Your task to perform on an android device: check storage Image 0: 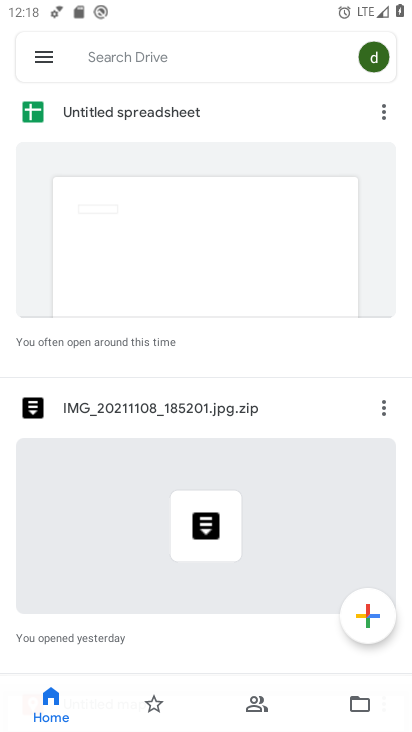
Step 0: press home button
Your task to perform on an android device: check storage Image 1: 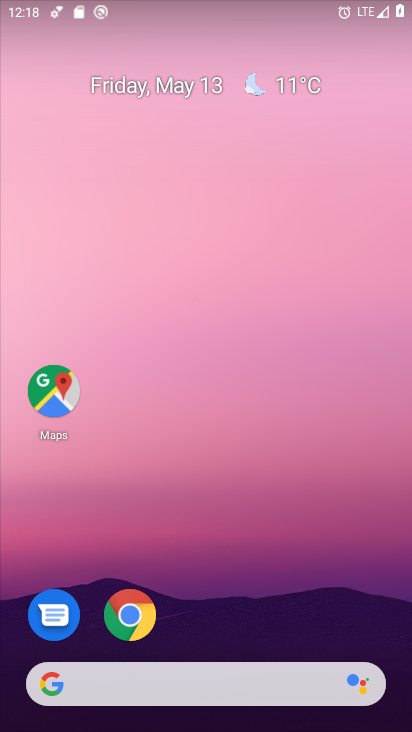
Step 1: drag from (231, 569) to (250, 30)
Your task to perform on an android device: check storage Image 2: 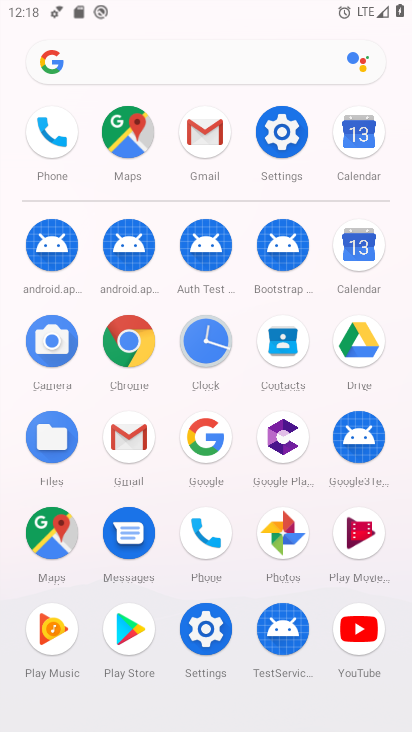
Step 2: click (272, 131)
Your task to perform on an android device: check storage Image 3: 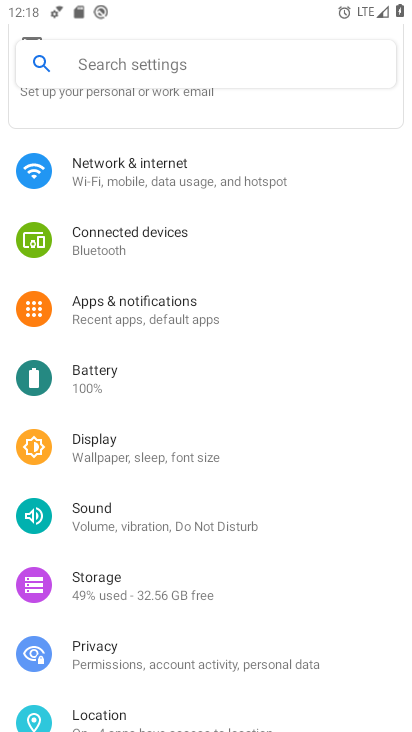
Step 3: click (162, 583)
Your task to perform on an android device: check storage Image 4: 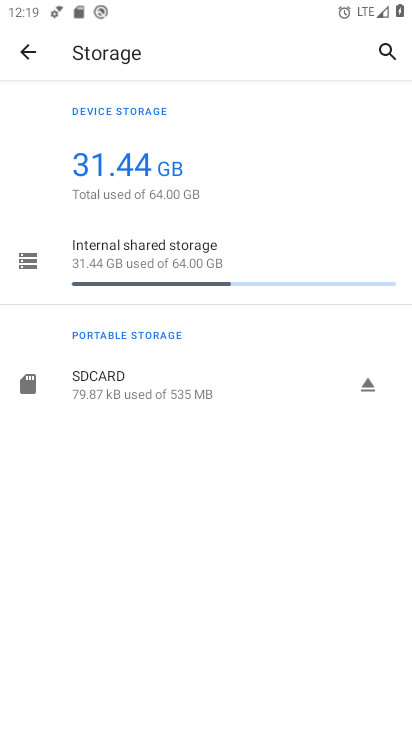
Step 4: task complete